Your task to perform on an android device: turn off airplane mode Image 0: 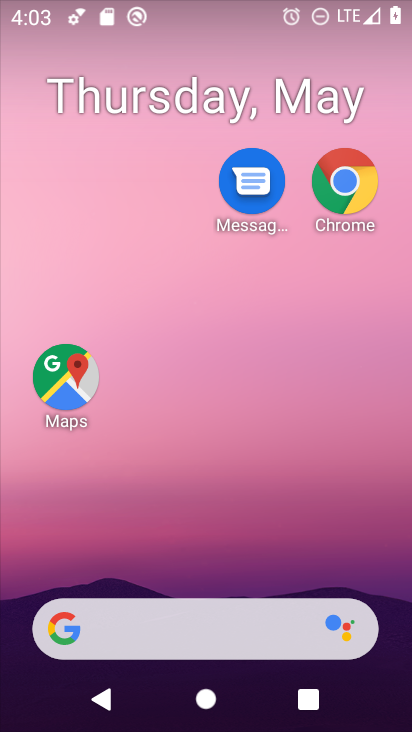
Step 0: drag from (302, 639) to (292, 74)
Your task to perform on an android device: turn off airplane mode Image 1: 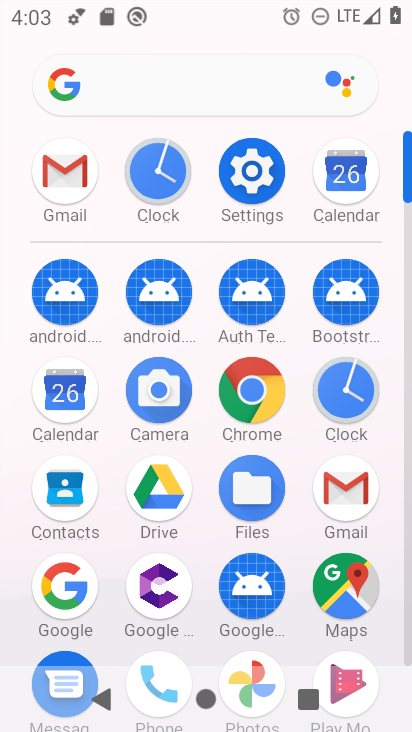
Step 1: click (269, 169)
Your task to perform on an android device: turn off airplane mode Image 2: 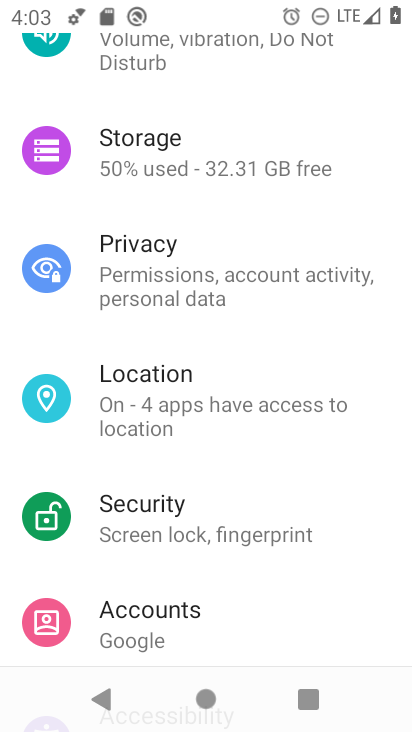
Step 2: drag from (245, 161) to (253, 710)
Your task to perform on an android device: turn off airplane mode Image 3: 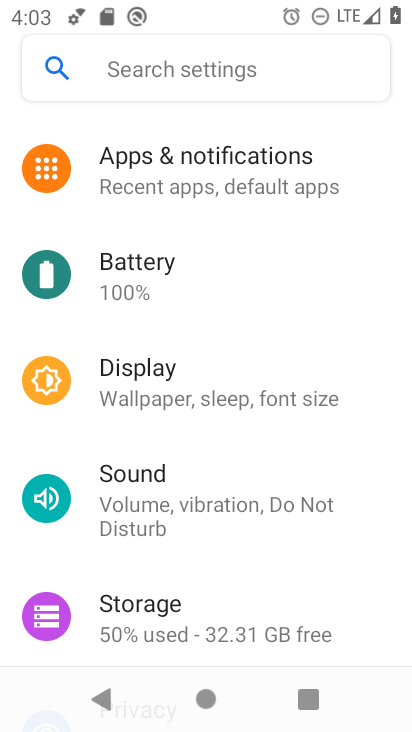
Step 3: drag from (217, 236) to (240, 726)
Your task to perform on an android device: turn off airplane mode Image 4: 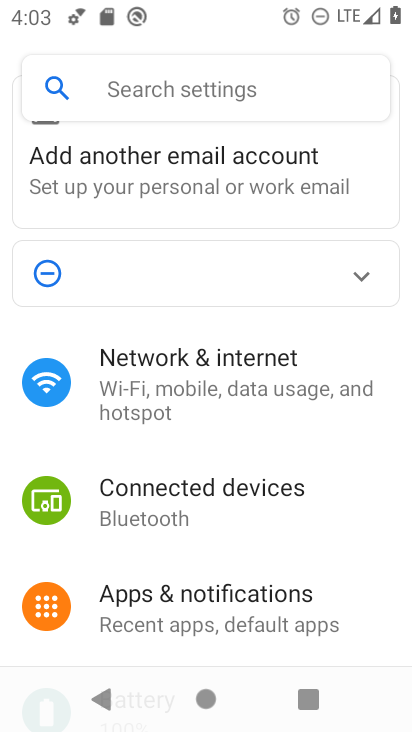
Step 4: click (231, 367)
Your task to perform on an android device: turn off airplane mode Image 5: 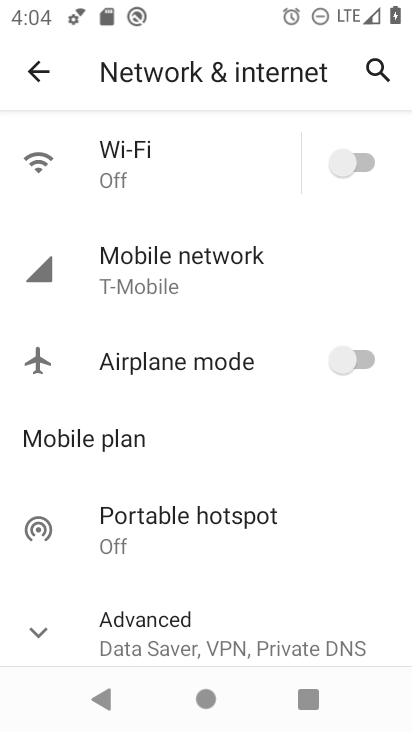
Step 5: task complete